Your task to perform on an android device: Show me the alarms in the clock app Image 0: 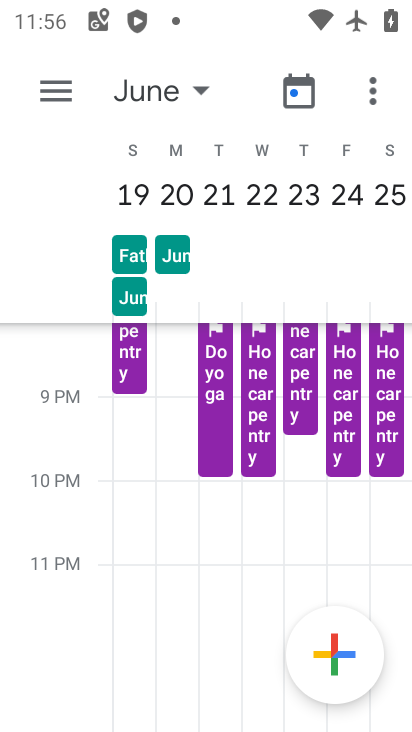
Step 0: press home button
Your task to perform on an android device: Show me the alarms in the clock app Image 1: 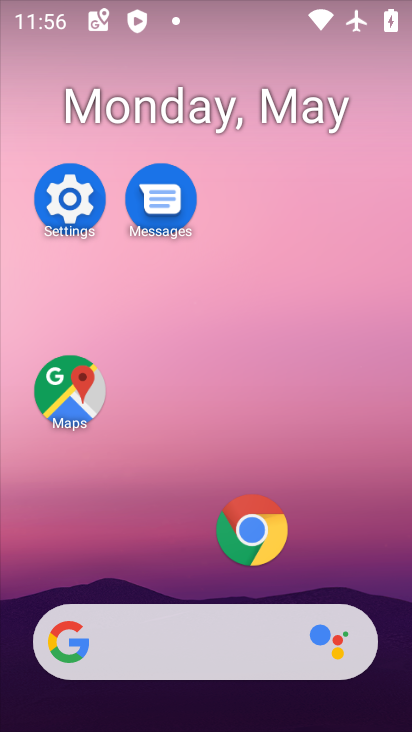
Step 1: drag from (161, 518) to (239, 163)
Your task to perform on an android device: Show me the alarms in the clock app Image 2: 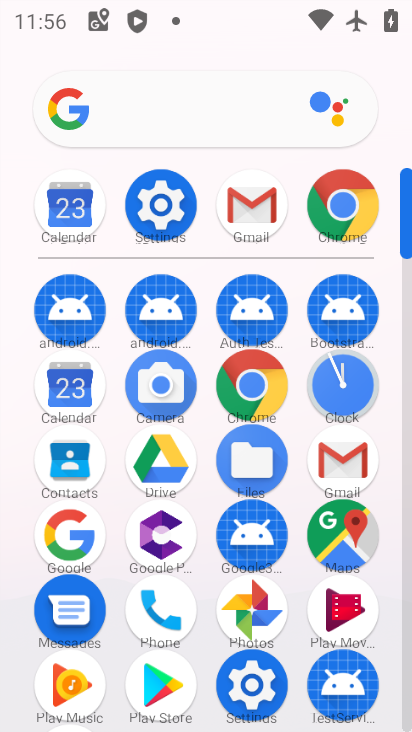
Step 2: click (340, 389)
Your task to perform on an android device: Show me the alarms in the clock app Image 3: 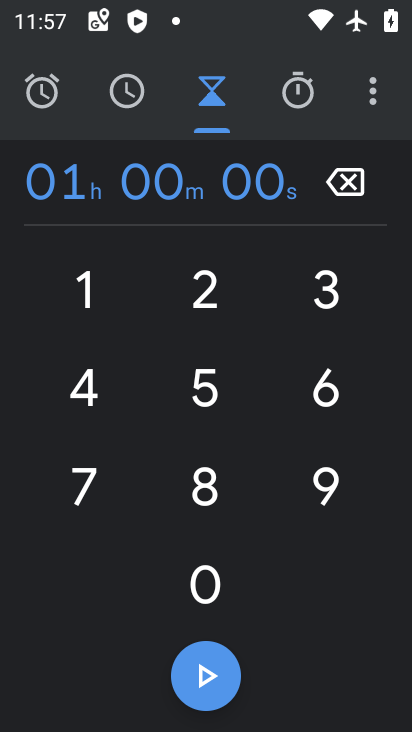
Step 3: click (50, 87)
Your task to perform on an android device: Show me the alarms in the clock app Image 4: 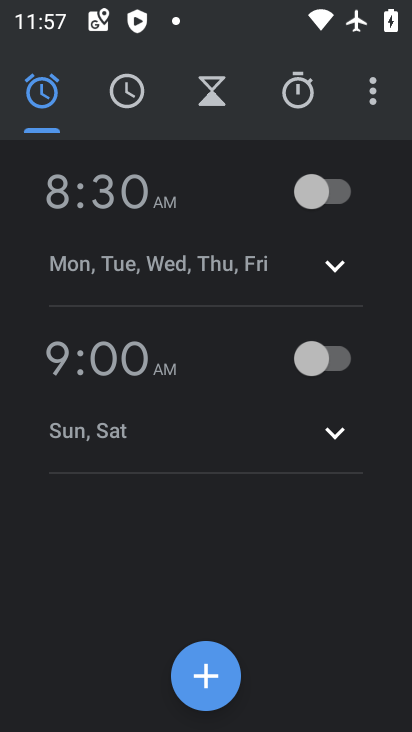
Step 4: task complete